Your task to perform on an android device: change the clock display to digital Image 0: 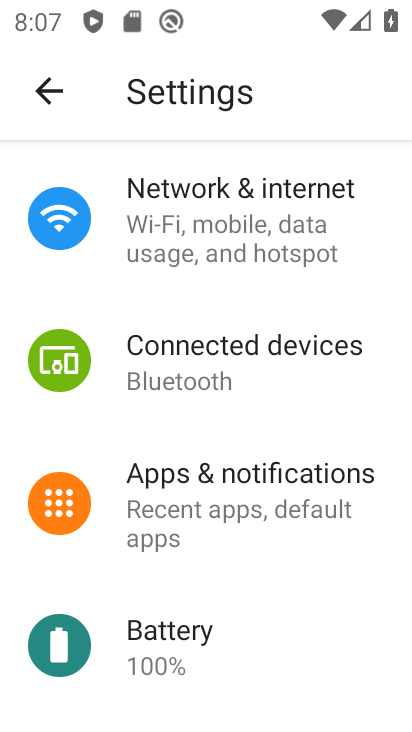
Step 0: press home button
Your task to perform on an android device: change the clock display to digital Image 1: 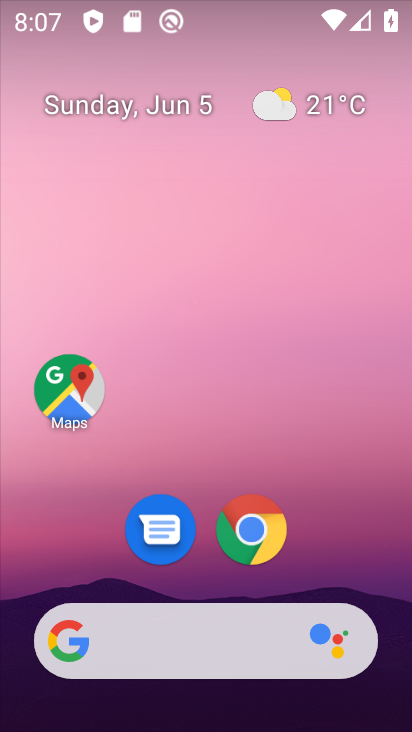
Step 1: drag from (275, 706) to (286, 108)
Your task to perform on an android device: change the clock display to digital Image 2: 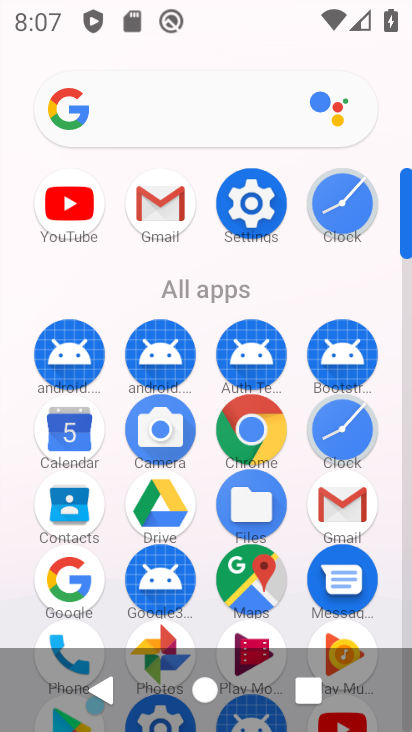
Step 2: click (351, 224)
Your task to perform on an android device: change the clock display to digital Image 3: 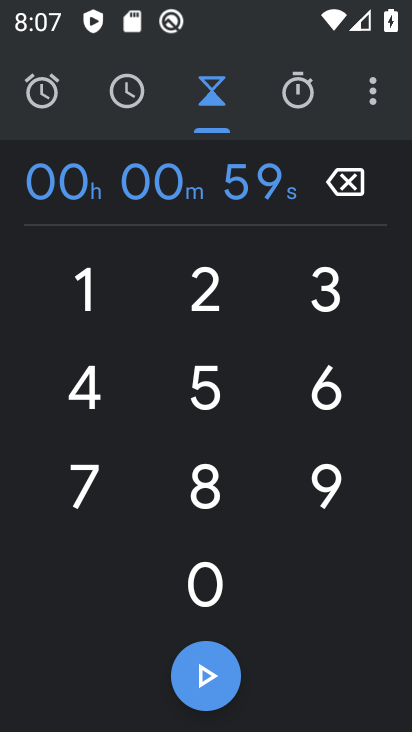
Step 3: click (377, 75)
Your task to perform on an android device: change the clock display to digital Image 4: 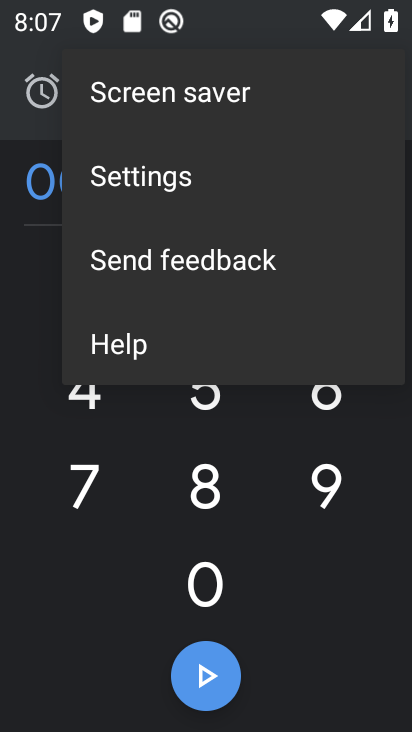
Step 4: click (242, 196)
Your task to perform on an android device: change the clock display to digital Image 5: 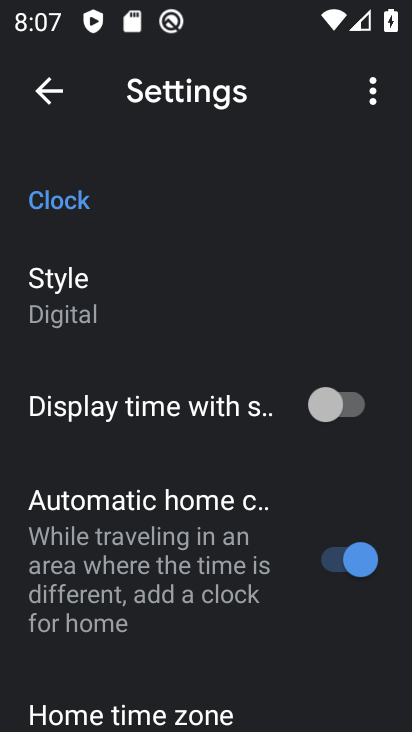
Step 5: click (95, 308)
Your task to perform on an android device: change the clock display to digital Image 6: 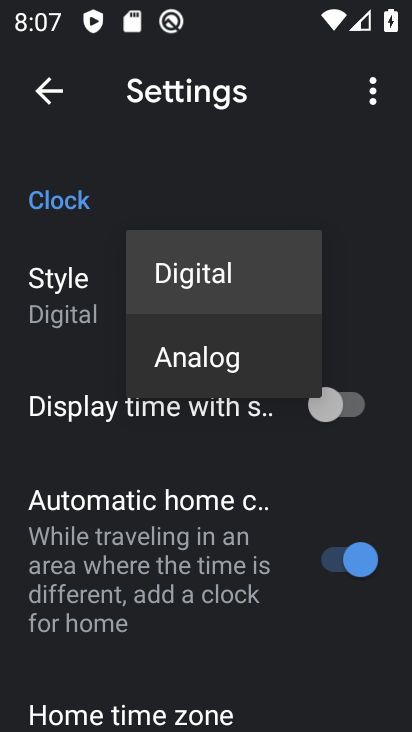
Step 6: task complete